Your task to perform on an android device: change keyboard looks Image 0: 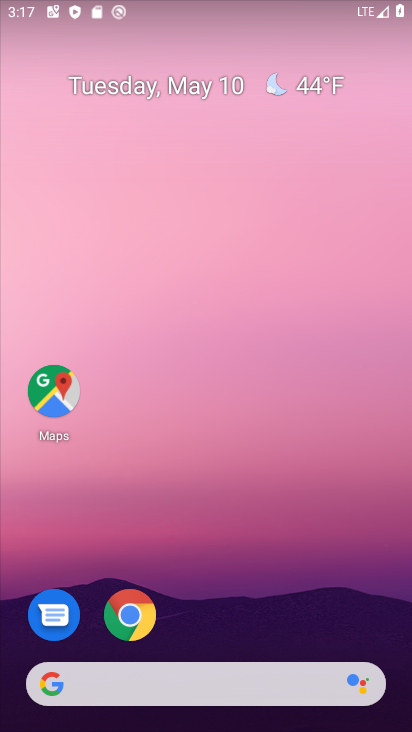
Step 0: drag from (273, 614) to (311, 74)
Your task to perform on an android device: change keyboard looks Image 1: 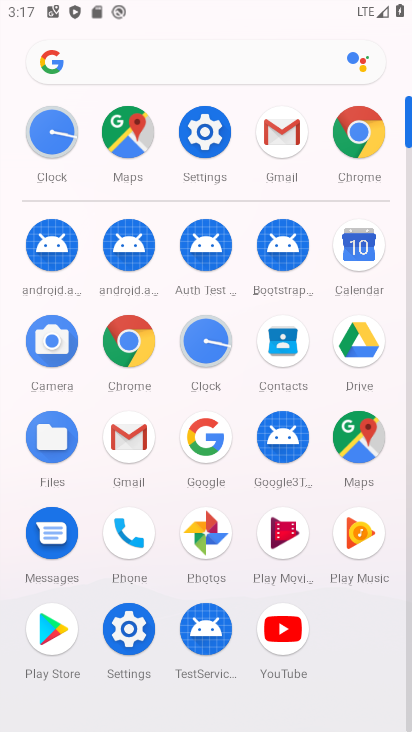
Step 1: click (186, 119)
Your task to perform on an android device: change keyboard looks Image 2: 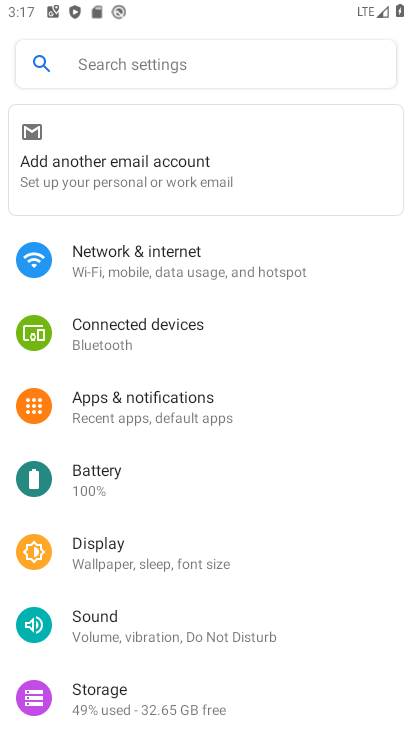
Step 2: drag from (241, 661) to (278, 271)
Your task to perform on an android device: change keyboard looks Image 3: 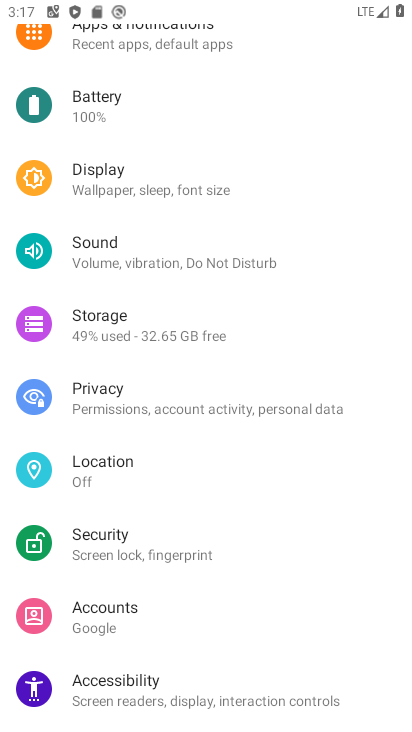
Step 3: drag from (234, 637) to (254, 302)
Your task to perform on an android device: change keyboard looks Image 4: 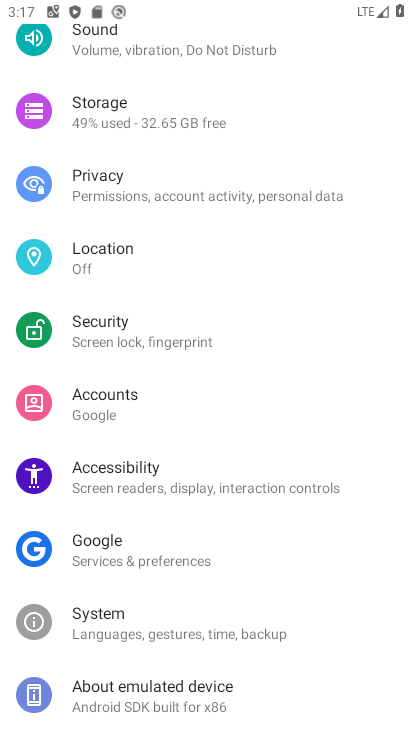
Step 4: click (107, 619)
Your task to perform on an android device: change keyboard looks Image 5: 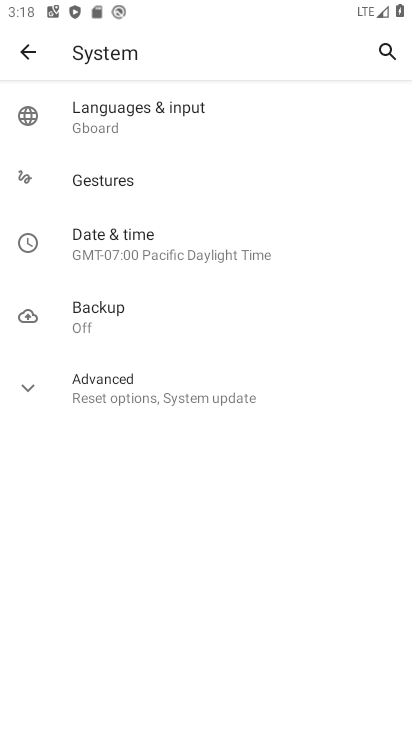
Step 5: click (105, 132)
Your task to perform on an android device: change keyboard looks Image 6: 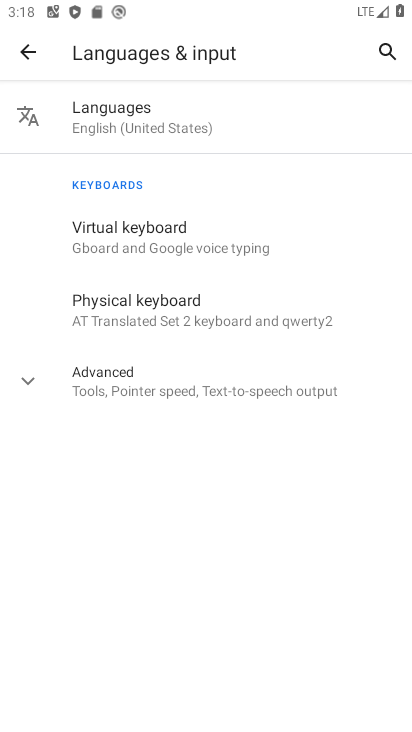
Step 6: click (95, 251)
Your task to perform on an android device: change keyboard looks Image 7: 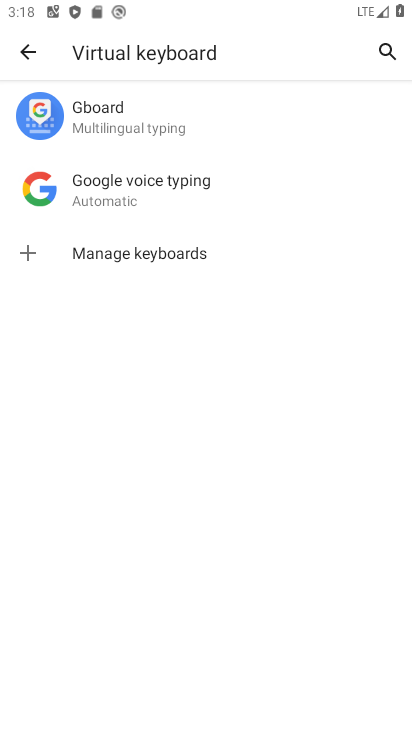
Step 7: click (114, 109)
Your task to perform on an android device: change keyboard looks Image 8: 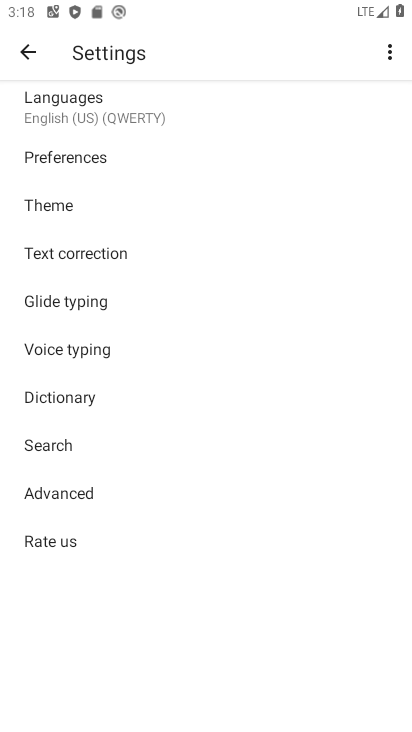
Step 8: click (67, 211)
Your task to perform on an android device: change keyboard looks Image 9: 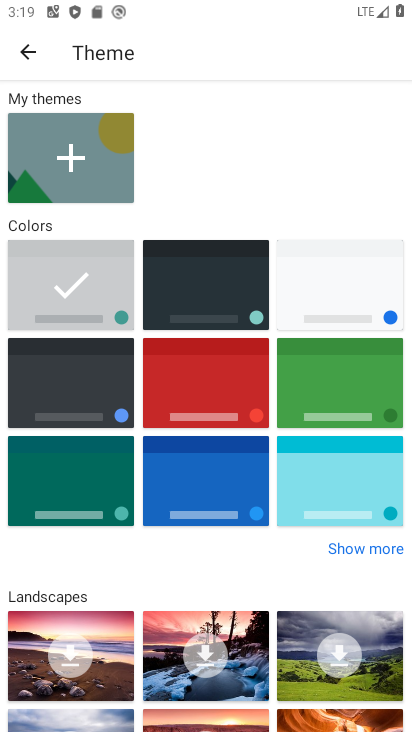
Step 9: click (198, 256)
Your task to perform on an android device: change keyboard looks Image 10: 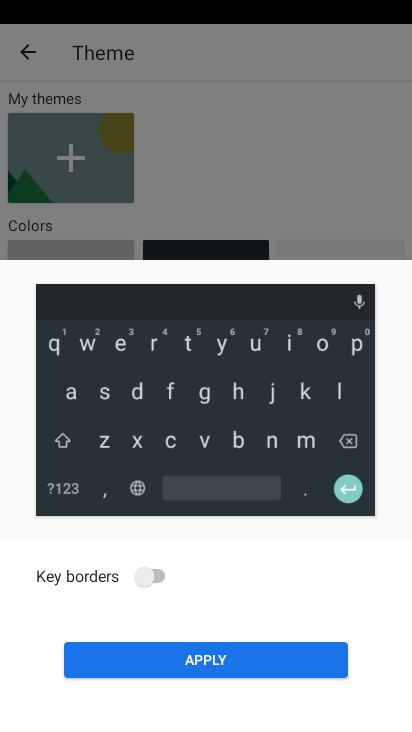
Step 10: click (152, 566)
Your task to perform on an android device: change keyboard looks Image 11: 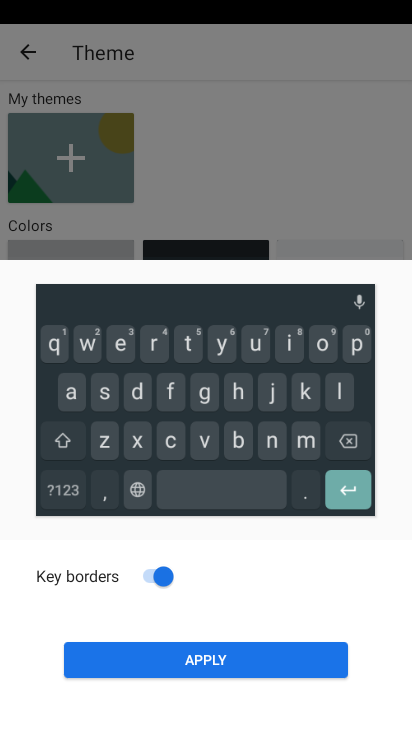
Step 11: click (232, 667)
Your task to perform on an android device: change keyboard looks Image 12: 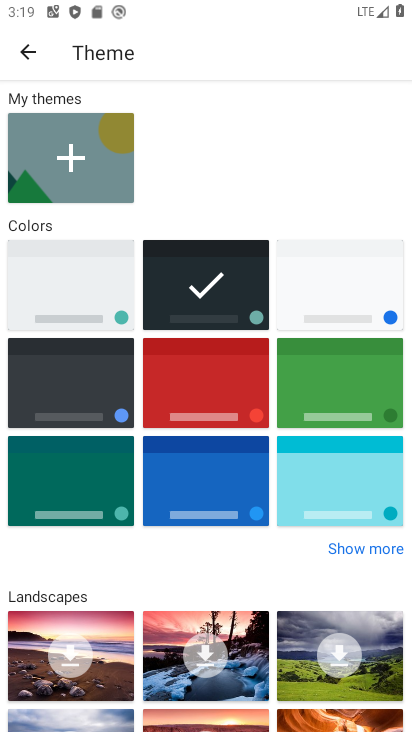
Step 12: task complete